Your task to perform on an android device: Open ESPN.com Image 0: 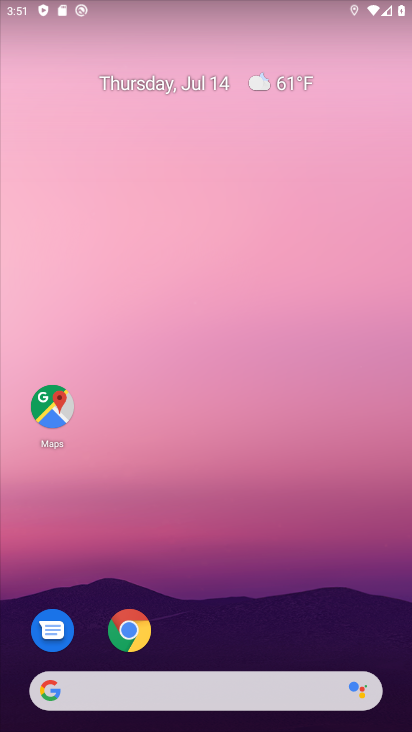
Step 0: drag from (254, 639) to (176, 182)
Your task to perform on an android device: Open ESPN.com Image 1: 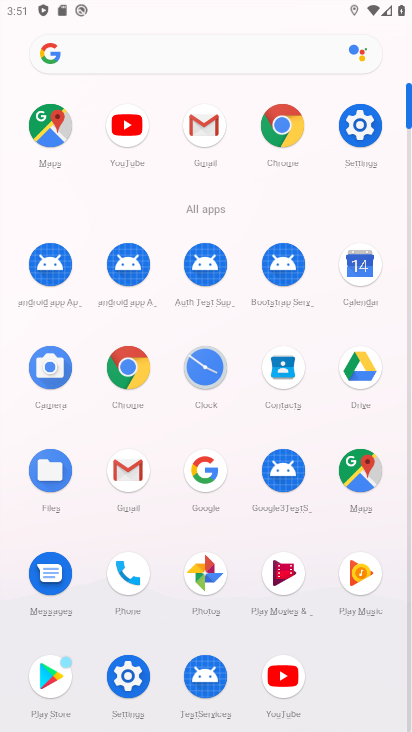
Step 1: click (275, 143)
Your task to perform on an android device: Open ESPN.com Image 2: 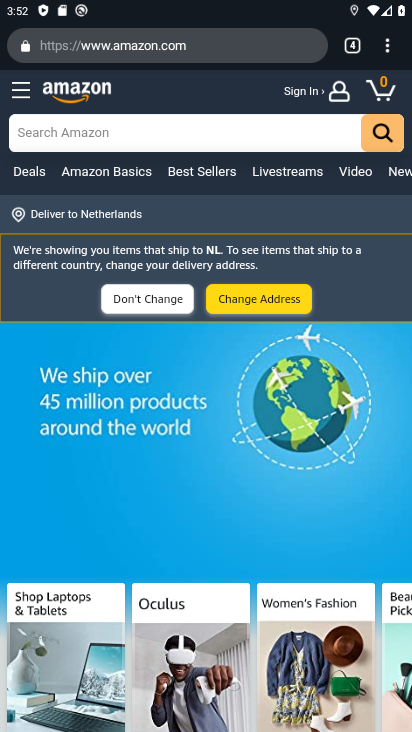
Step 2: click (354, 47)
Your task to perform on an android device: Open ESPN.com Image 3: 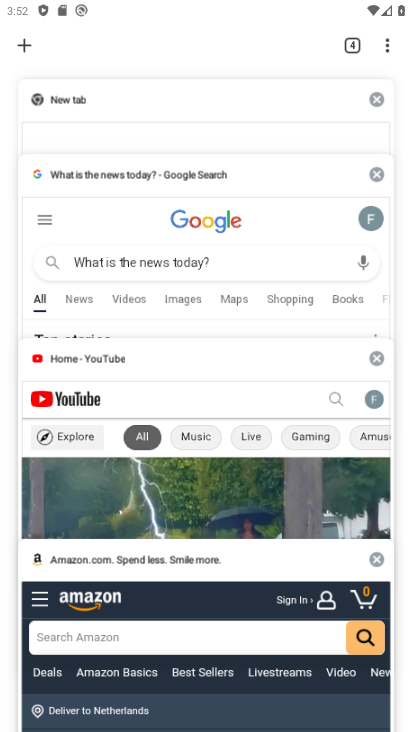
Step 3: click (389, 51)
Your task to perform on an android device: Open ESPN.com Image 4: 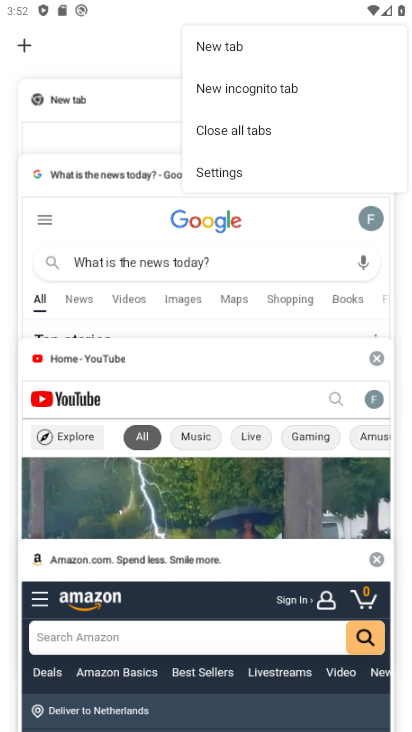
Step 4: click (294, 42)
Your task to perform on an android device: Open ESPN.com Image 5: 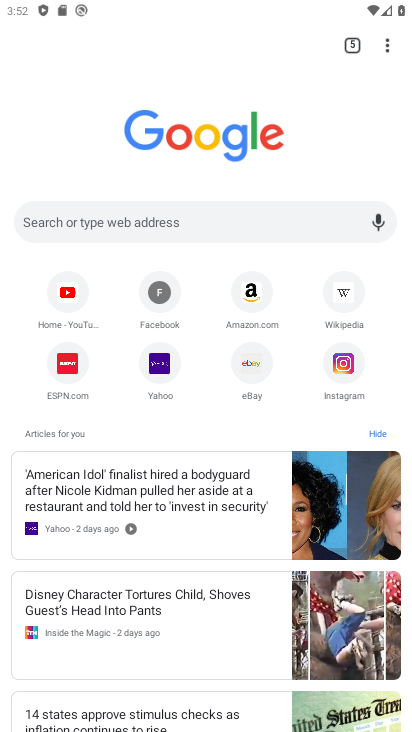
Step 5: click (56, 375)
Your task to perform on an android device: Open ESPN.com Image 6: 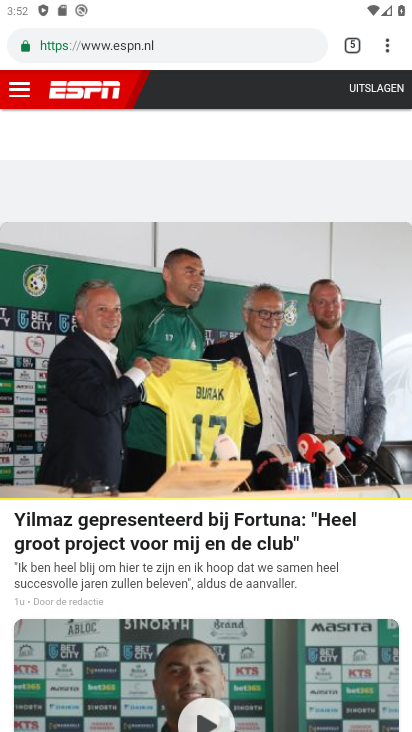
Step 6: task complete